Your task to perform on an android device: What's the weather going to be this weekend? Image 0: 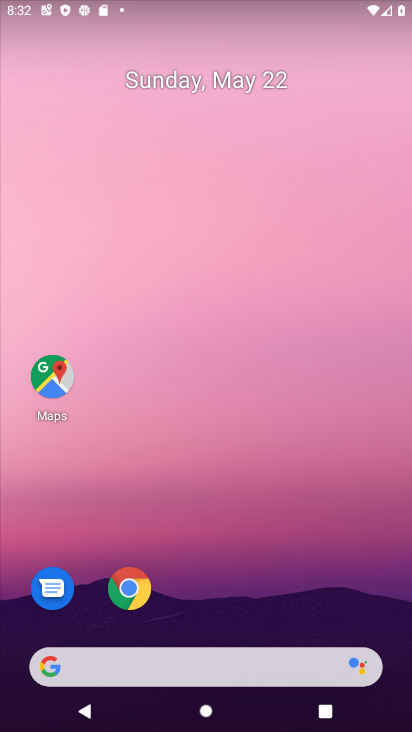
Step 0: drag from (265, 483) to (335, 96)
Your task to perform on an android device: What's the weather going to be this weekend? Image 1: 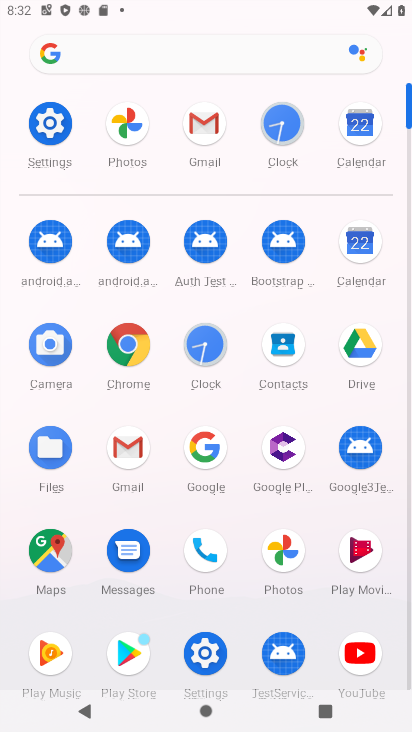
Step 1: click (249, 100)
Your task to perform on an android device: What's the weather going to be this weekend? Image 2: 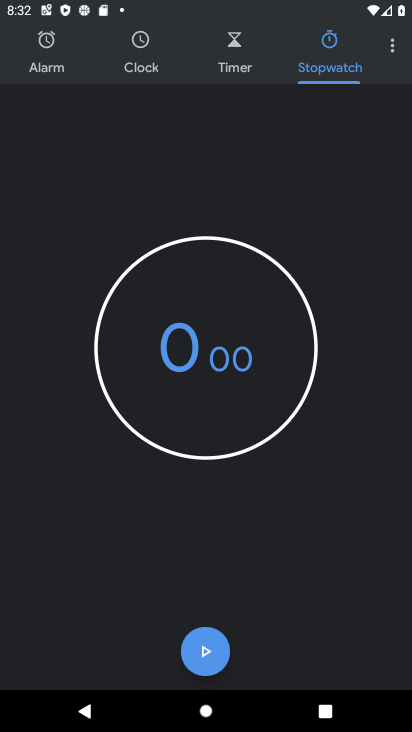
Step 2: press home button
Your task to perform on an android device: What's the weather going to be this weekend? Image 3: 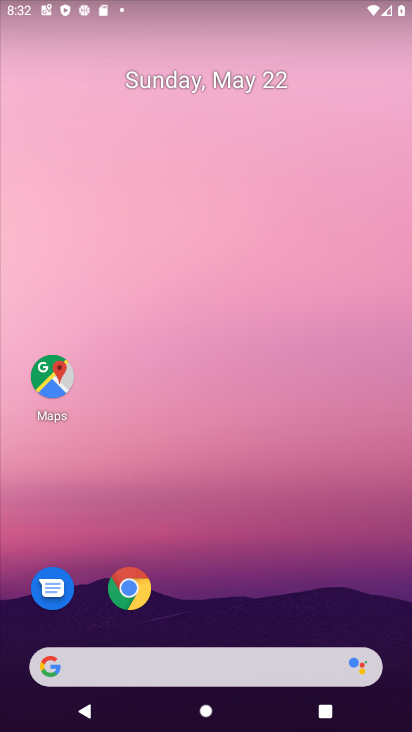
Step 3: click (164, 675)
Your task to perform on an android device: What's the weather going to be this weekend? Image 4: 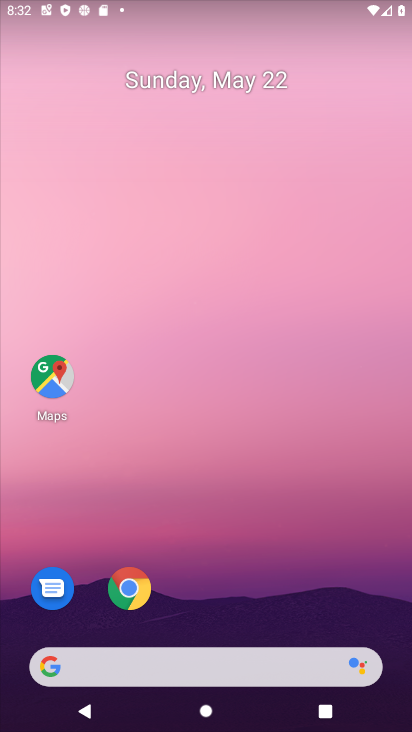
Step 4: click (133, 664)
Your task to perform on an android device: What's the weather going to be this weekend? Image 5: 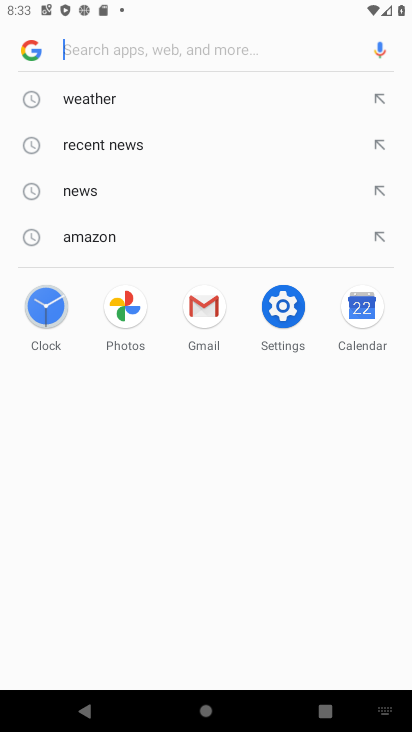
Step 5: click (86, 97)
Your task to perform on an android device: What's the weather going to be this weekend? Image 6: 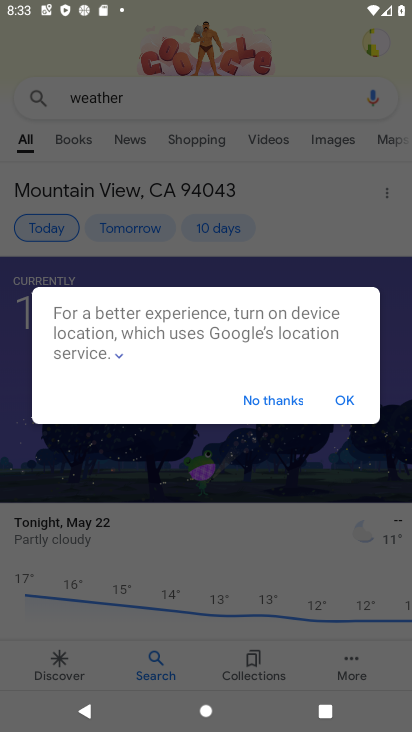
Step 6: click (343, 394)
Your task to perform on an android device: What's the weather going to be this weekend? Image 7: 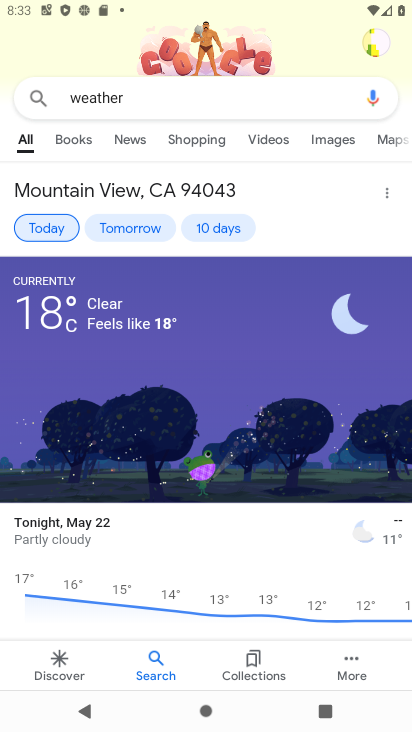
Step 7: click (208, 223)
Your task to perform on an android device: What's the weather going to be this weekend? Image 8: 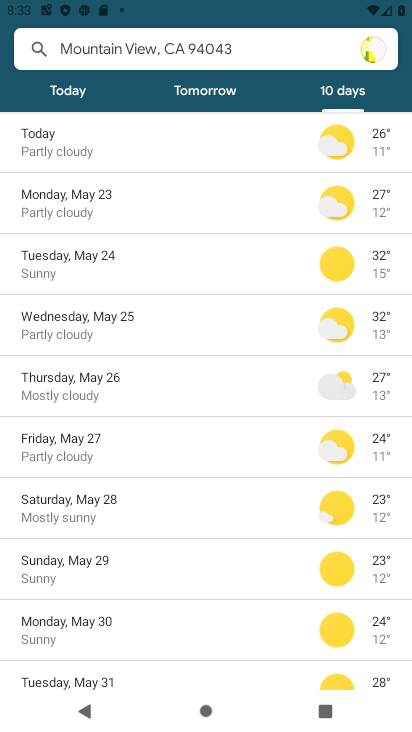
Step 8: task complete